Your task to perform on an android device: turn on the 24-hour format for clock Image 0: 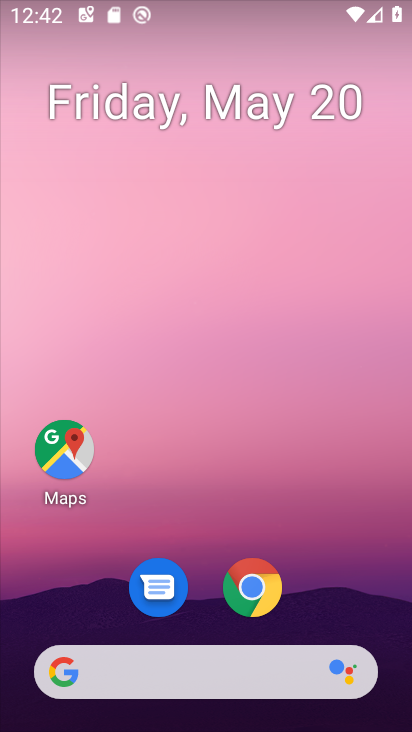
Step 0: drag from (366, 497) to (353, 252)
Your task to perform on an android device: turn on the 24-hour format for clock Image 1: 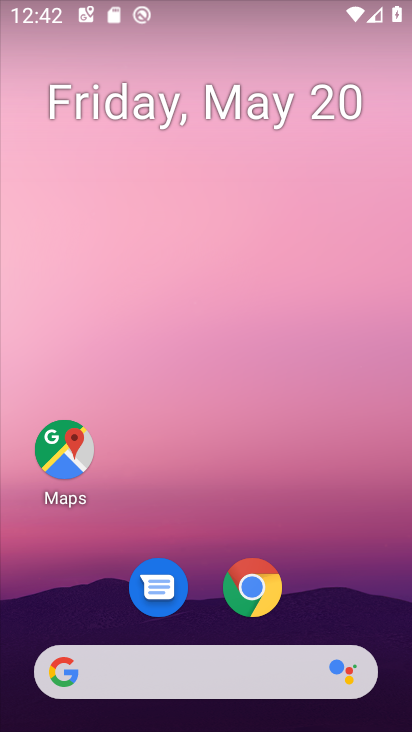
Step 1: drag from (355, 580) to (355, 256)
Your task to perform on an android device: turn on the 24-hour format for clock Image 2: 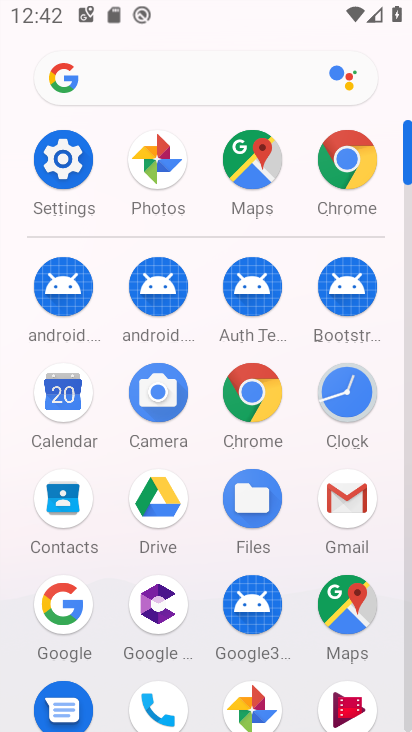
Step 2: click (344, 404)
Your task to perform on an android device: turn on the 24-hour format for clock Image 3: 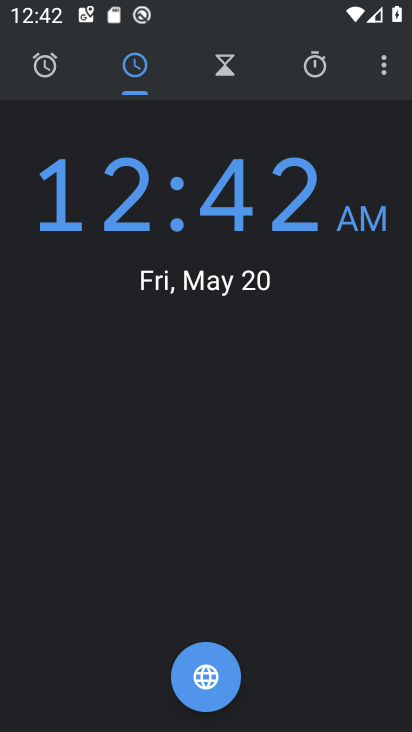
Step 3: click (384, 72)
Your task to perform on an android device: turn on the 24-hour format for clock Image 4: 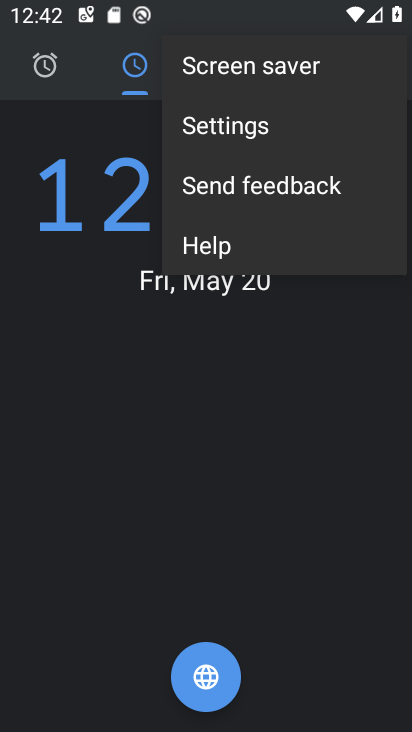
Step 4: click (272, 136)
Your task to perform on an android device: turn on the 24-hour format for clock Image 5: 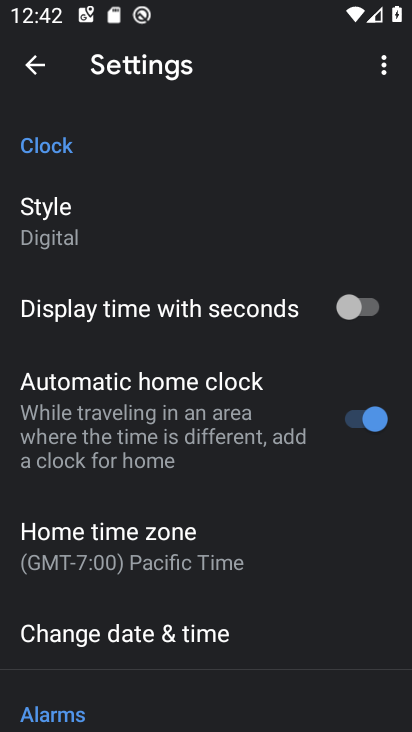
Step 5: drag from (311, 517) to (311, 478)
Your task to perform on an android device: turn on the 24-hour format for clock Image 6: 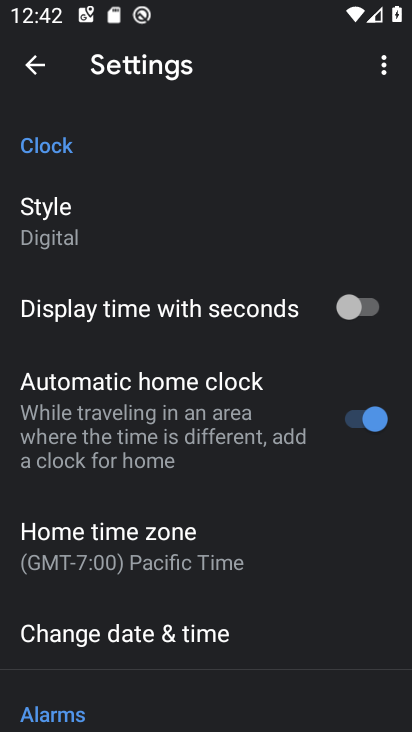
Step 6: drag from (298, 641) to (307, 436)
Your task to perform on an android device: turn on the 24-hour format for clock Image 7: 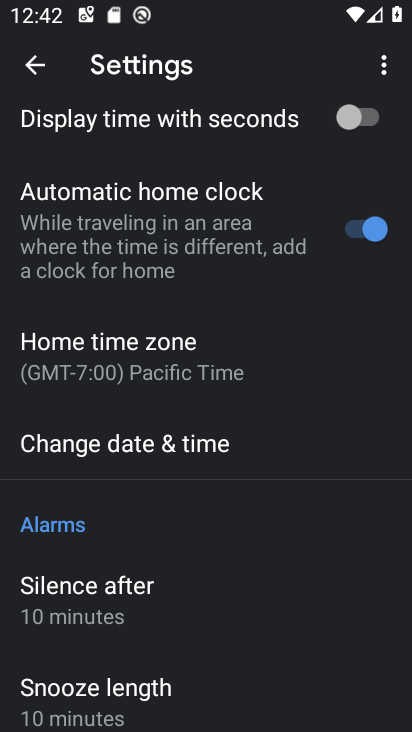
Step 7: click (262, 458)
Your task to perform on an android device: turn on the 24-hour format for clock Image 8: 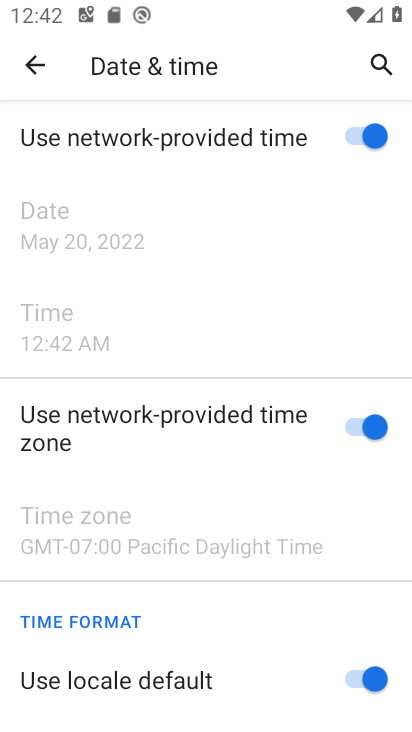
Step 8: drag from (272, 636) to (281, 494)
Your task to perform on an android device: turn on the 24-hour format for clock Image 9: 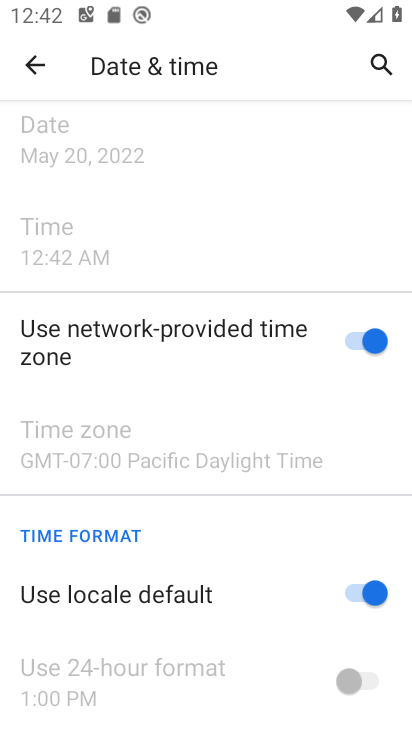
Step 9: click (374, 585)
Your task to perform on an android device: turn on the 24-hour format for clock Image 10: 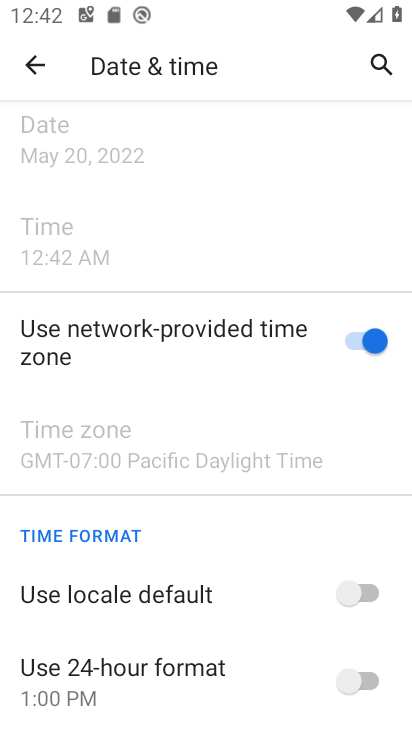
Step 10: click (337, 684)
Your task to perform on an android device: turn on the 24-hour format for clock Image 11: 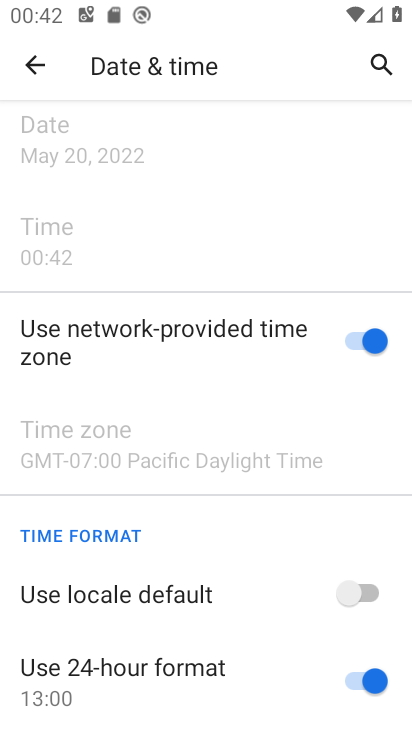
Step 11: task complete